Your task to perform on an android device: Open eBay Image 0: 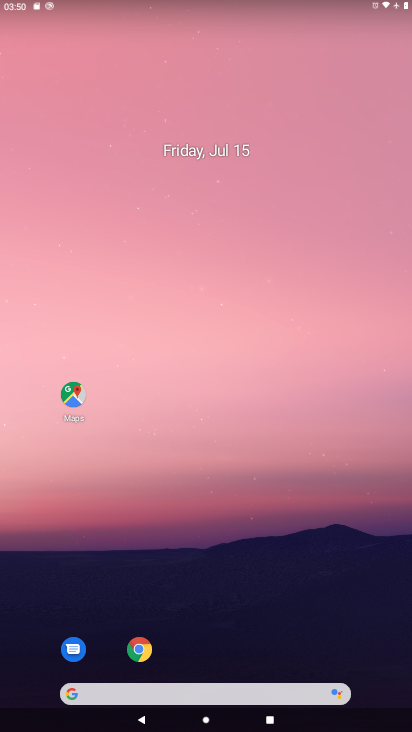
Step 0: click (136, 650)
Your task to perform on an android device: Open eBay Image 1: 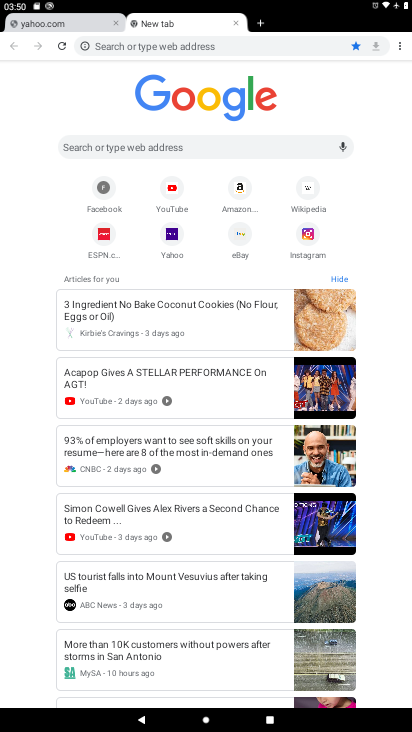
Step 1: click (141, 140)
Your task to perform on an android device: Open eBay Image 2: 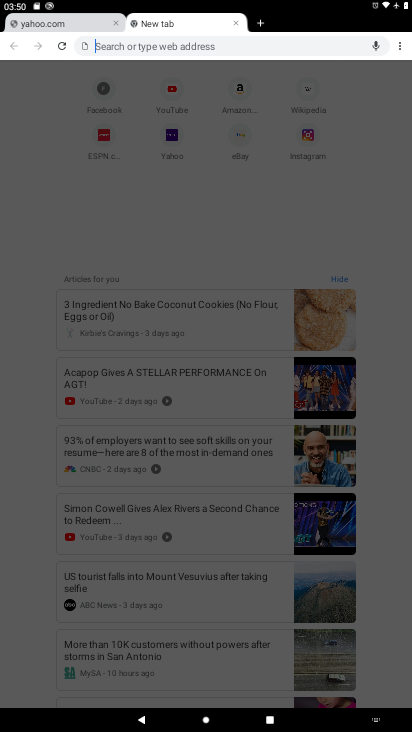
Step 2: type "eBay"
Your task to perform on an android device: Open eBay Image 3: 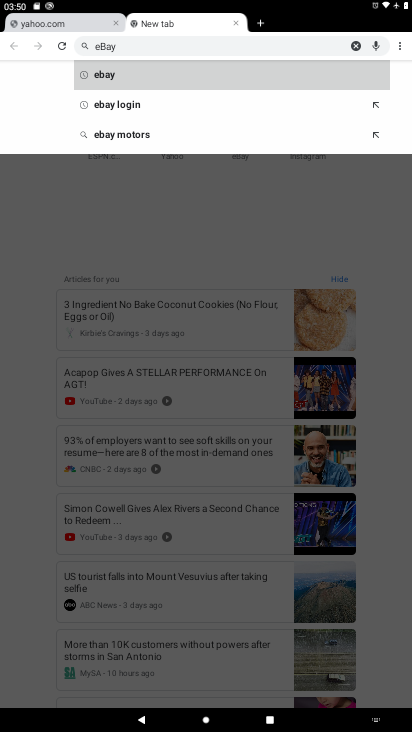
Step 3: click (106, 73)
Your task to perform on an android device: Open eBay Image 4: 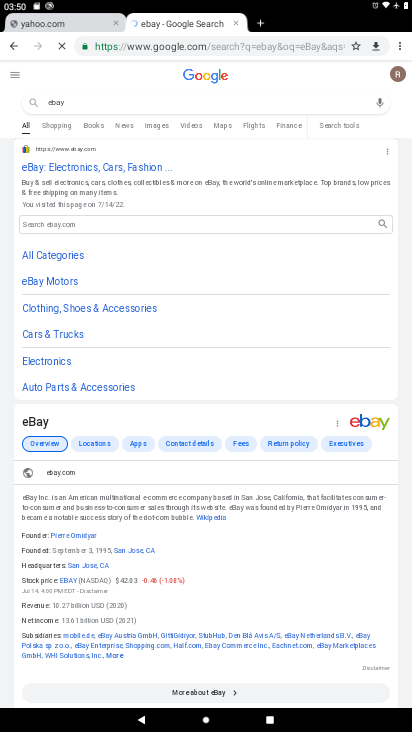
Step 4: click (60, 161)
Your task to perform on an android device: Open eBay Image 5: 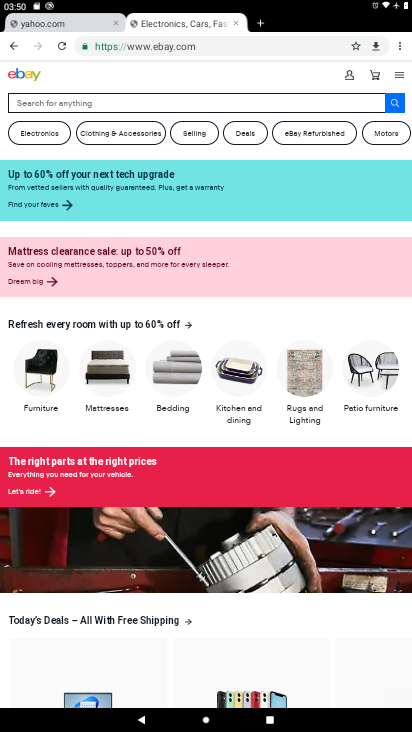
Step 5: task complete